Your task to perform on an android device: Go to Amazon Image 0: 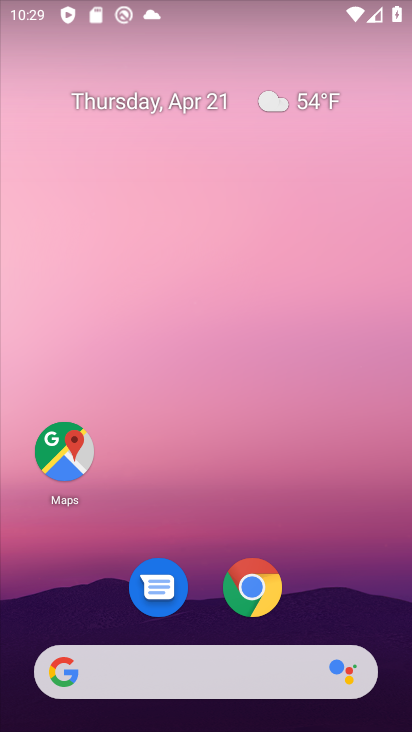
Step 0: click (269, 593)
Your task to perform on an android device: Go to Amazon Image 1: 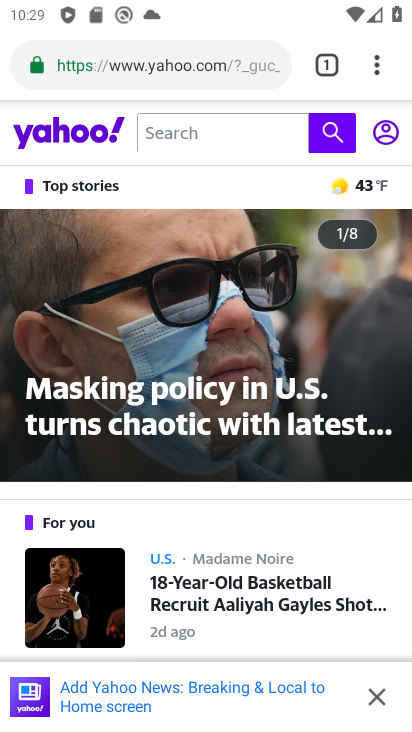
Step 1: click (190, 53)
Your task to perform on an android device: Go to Amazon Image 2: 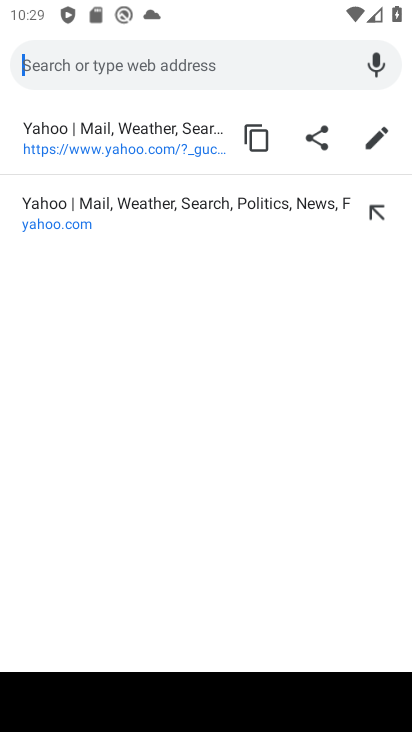
Step 2: type "amazon"
Your task to perform on an android device: Go to Amazon Image 3: 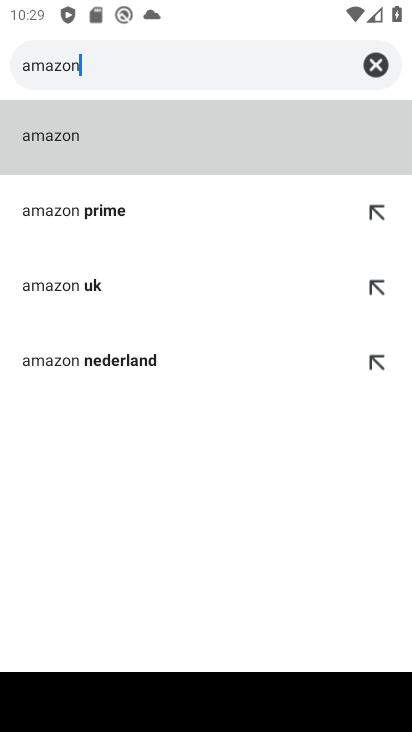
Step 3: click (107, 146)
Your task to perform on an android device: Go to Amazon Image 4: 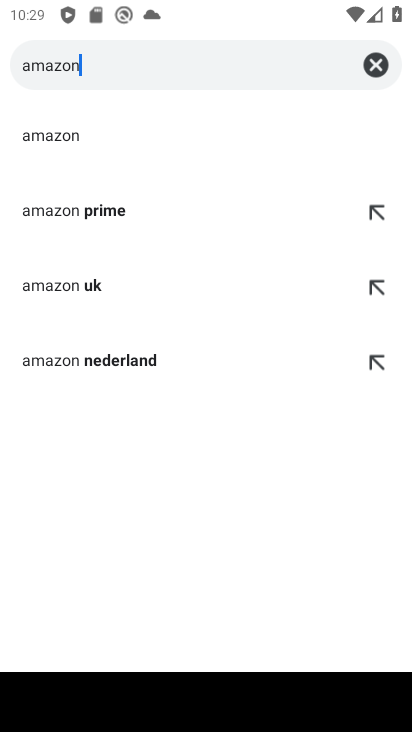
Step 4: click (70, 138)
Your task to perform on an android device: Go to Amazon Image 5: 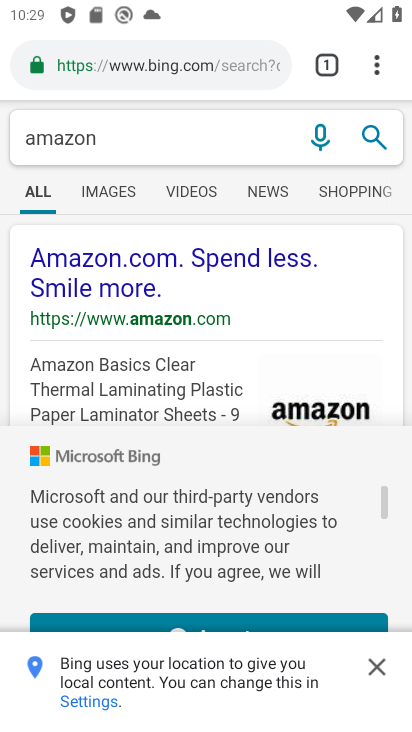
Step 5: click (139, 292)
Your task to perform on an android device: Go to Amazon Image 6: 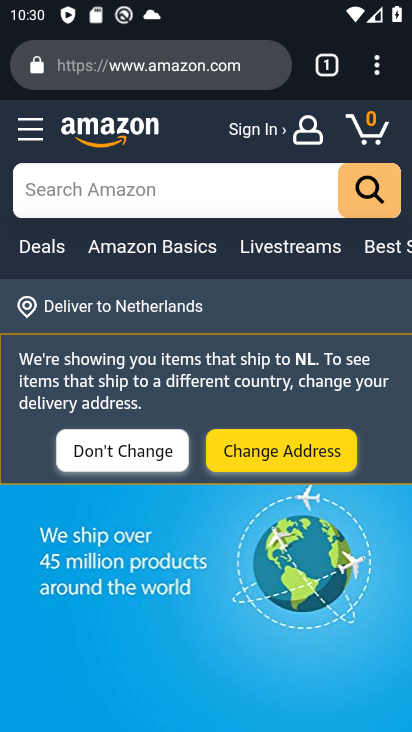
Step 6: task complete